Your task to perform on an android device: open app "Paramount+ | Peak Streaming" Image 0: 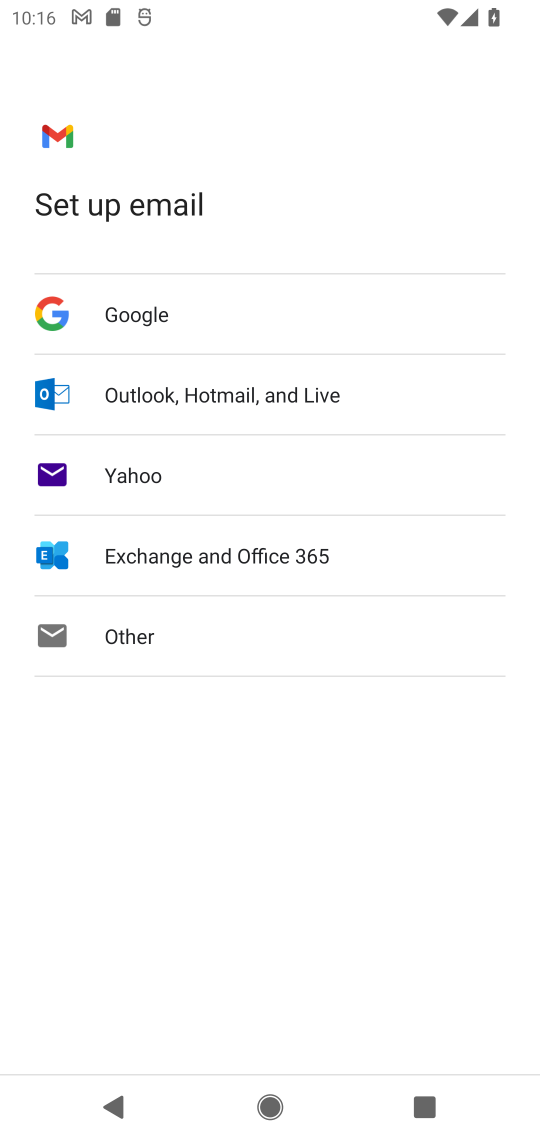
Step 0: press home button
Your task to perform on an android device: open app "Paramount+ | Peak Streaming" Image 1: 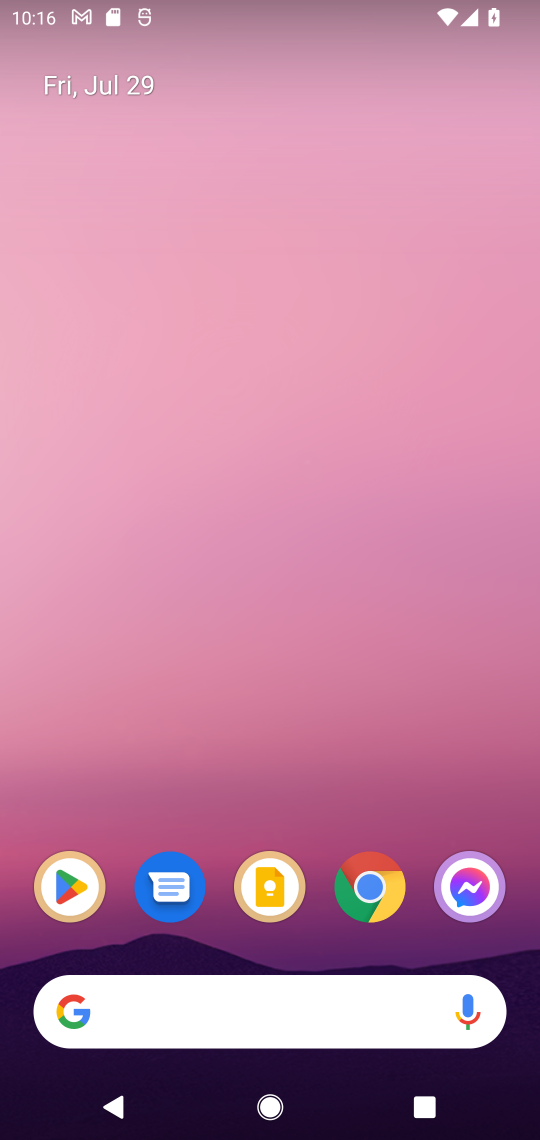
Step 1: click (78, 874)
Your task to perform on an android device: open app "Paramount+ | Peak Streaming" Image 2: 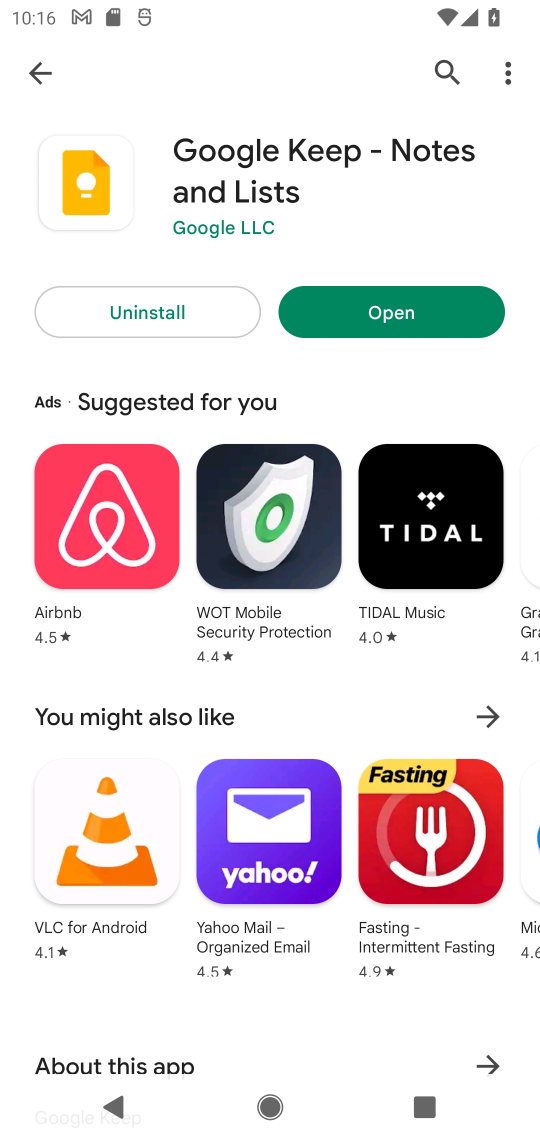
Step 2: click (427, 57)
Your task to perform on an android device: open app "Paramount+ | Peak Streaming" Image 3: 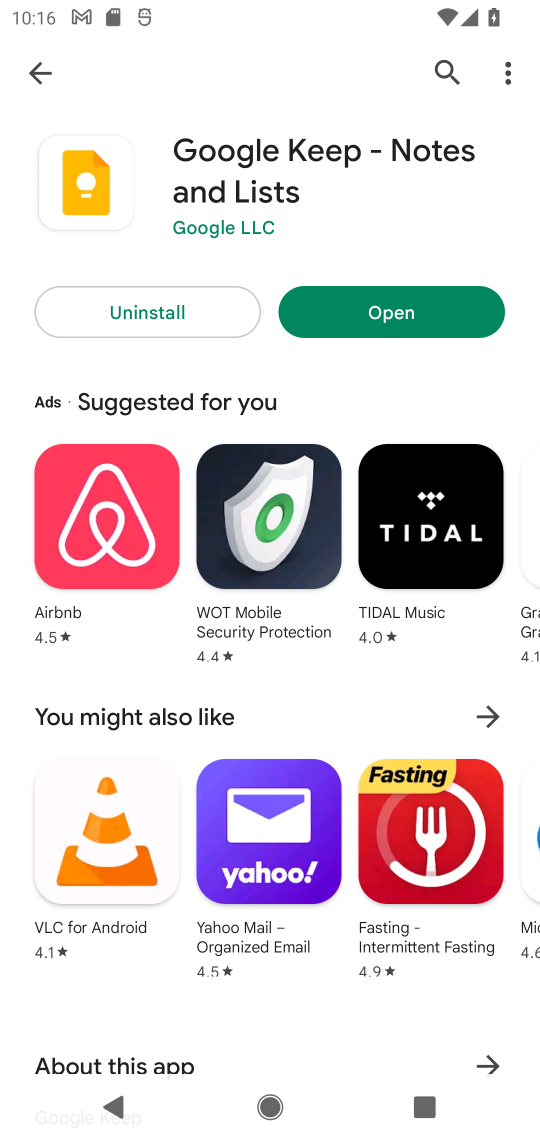
Step 3: click (445, 78)
Your task to perform on an android device: open app "Paramount+ | Peak Streaming" Image 4: 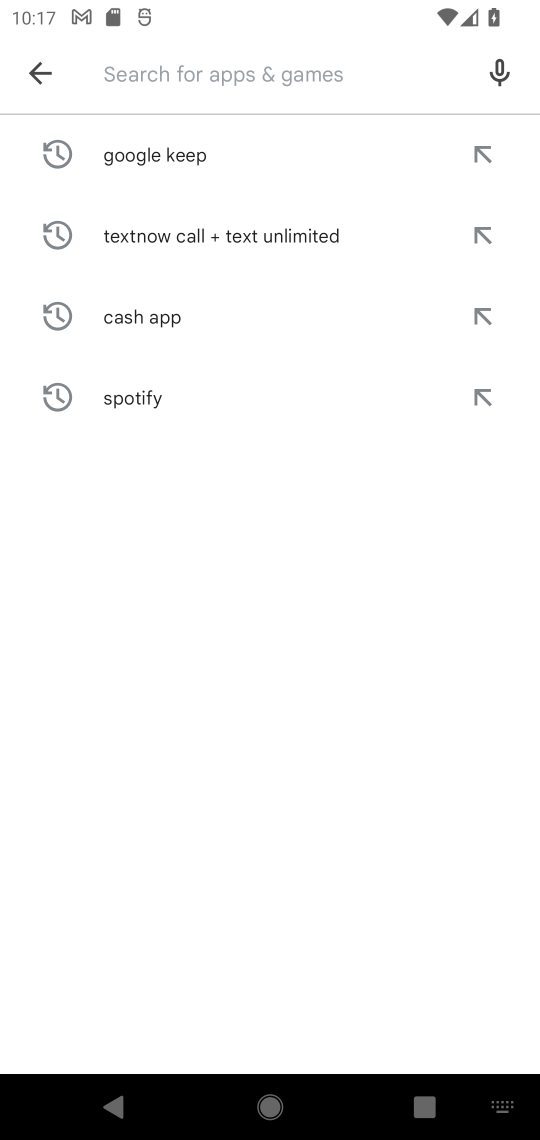
Step 4: type "paramount+ peak streaming"
Your task to perform on an android device: open app "Paramount+ | Peak Streaming" Image 5: 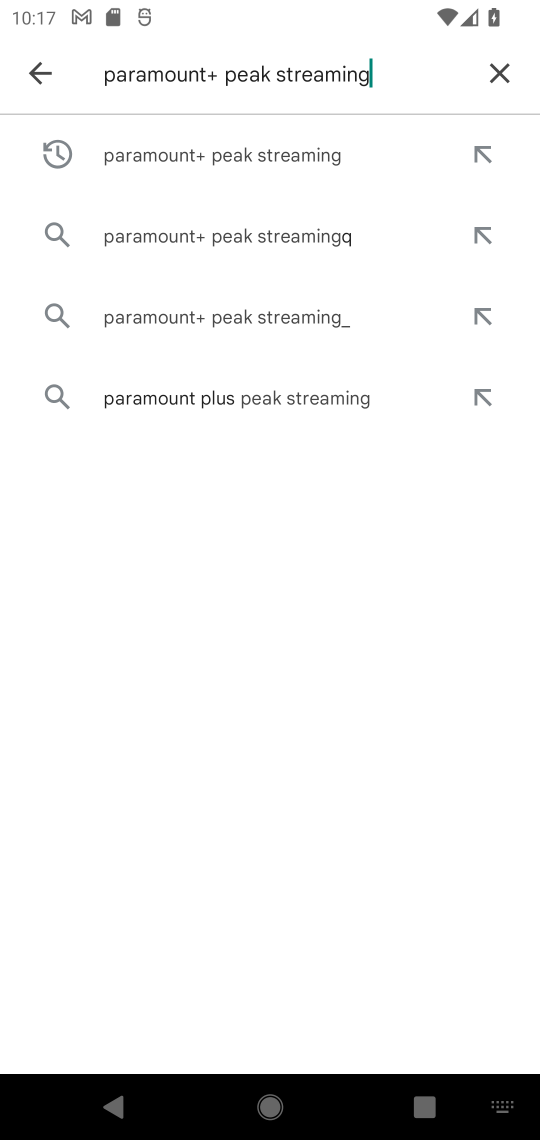
Step 5: click (239, 140)
Your task to perform on an android device: open app "Paramount+ | Peak Streaming" Image 6: 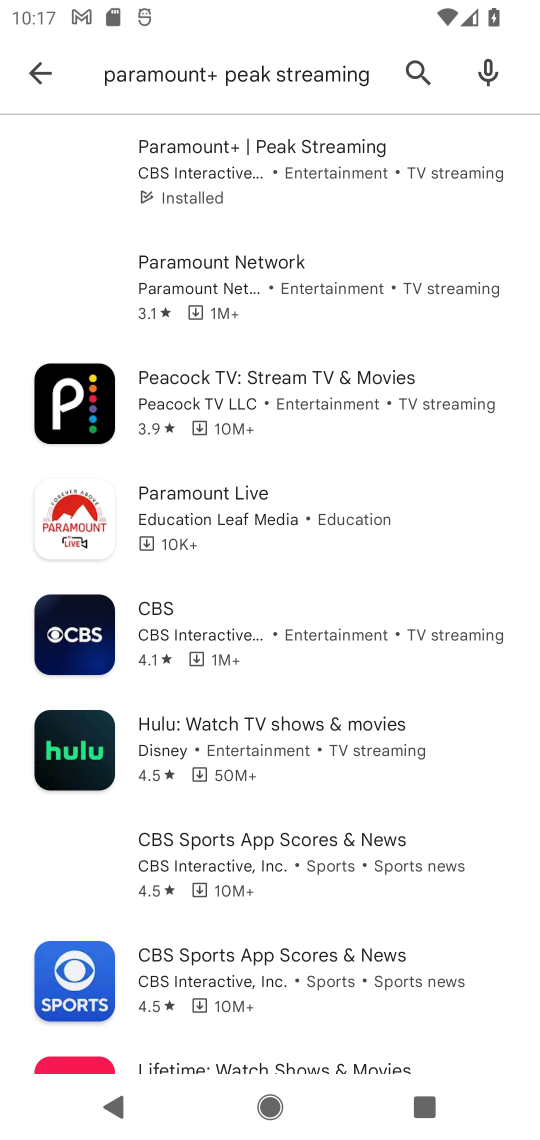
Step 6: click (191, 197)
Your task to perform on an android device: open app "Paramount+ | Peak Streaming" Image 7: 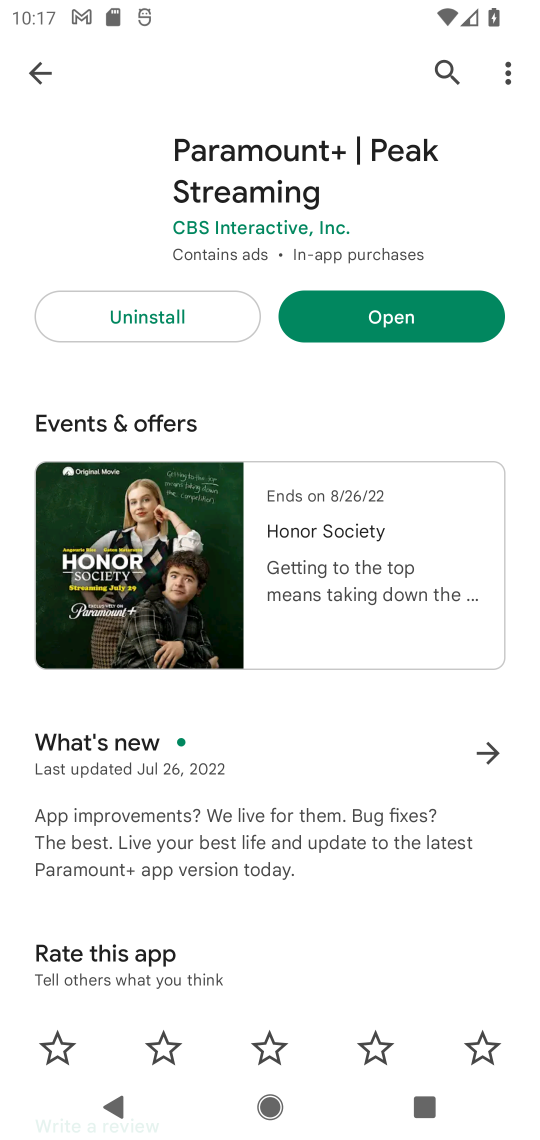
Step 7: click (452, 302)
Your task to perform on an android device: open app "Paramount+ | Peak Streaming" Image 8: 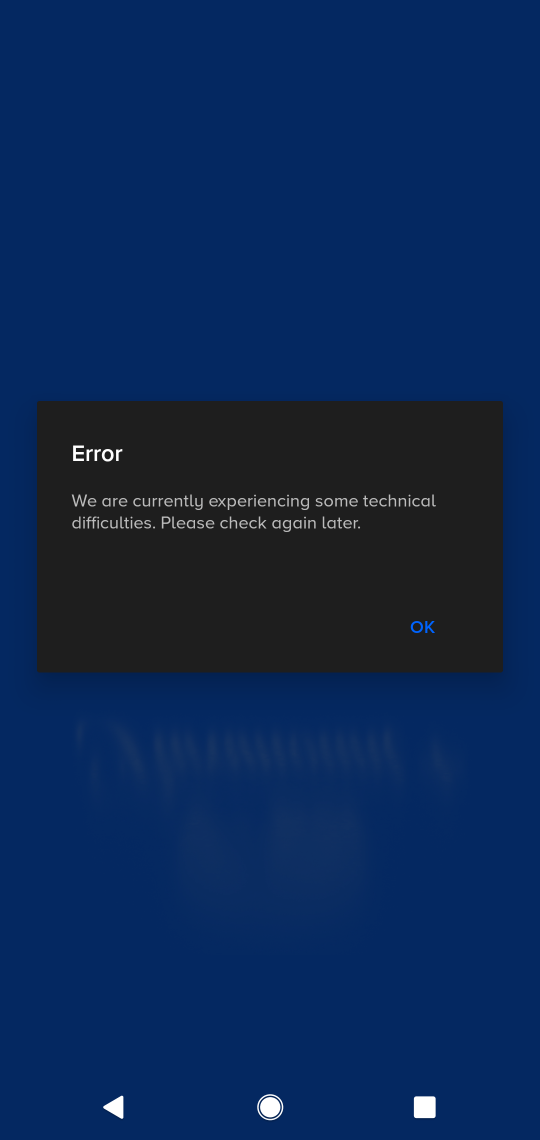
Step 8: task complete